Your task to perform on an android device: Play the last video I watched on Youtube Image 0: 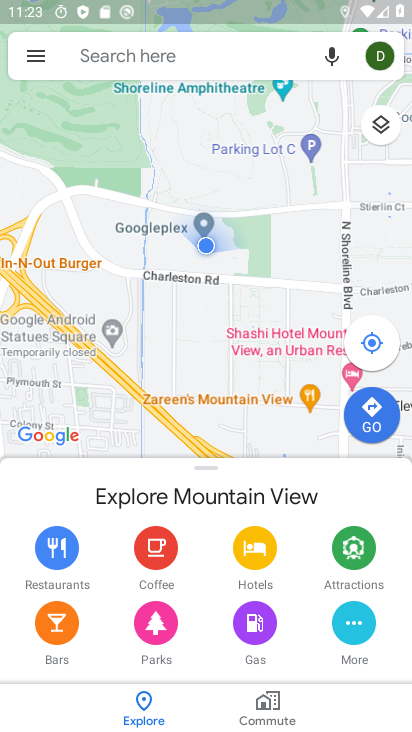
Step 0: press home button
Your task to perform on an android device: Play the last video I watched on Youtube Image 1: 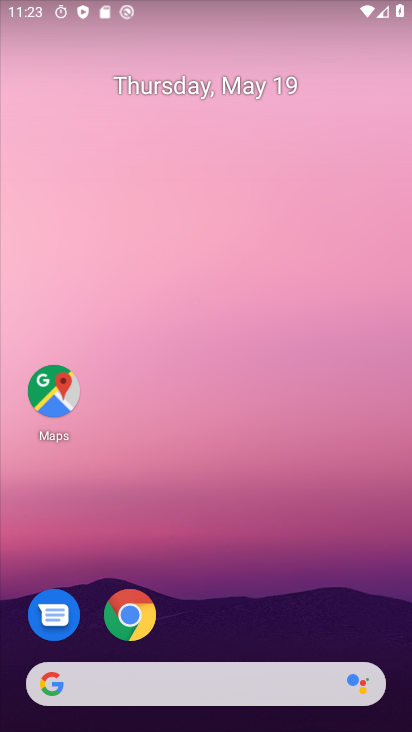
Step 1: drag from (310, 608) to (223, 1)
Your task to perform on an android device: Play the last video I watched on Youtube Image 2: 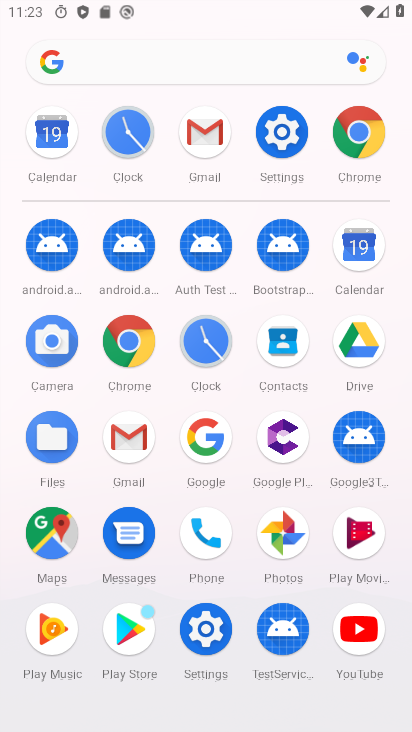
Step 2: drag from (162, 298) to (153, 117)
Your task to perform on an android device: Play the last video I watched on Youtube Image 3: 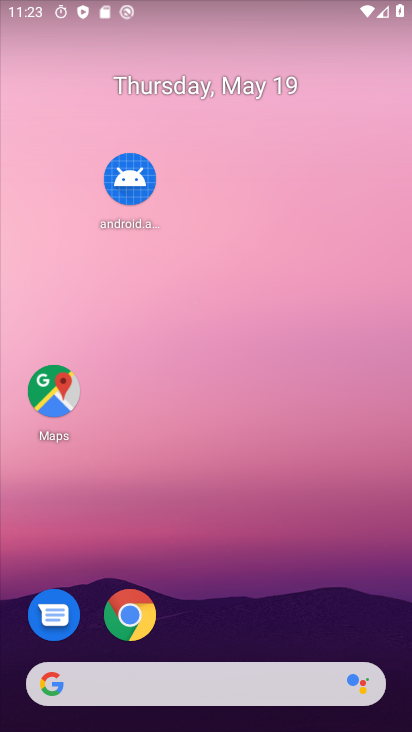
Step 3: drag from (345, 548) to (271, 25)
Your task to perform on an android device: Play the last video I watched on Youtube Image 4: 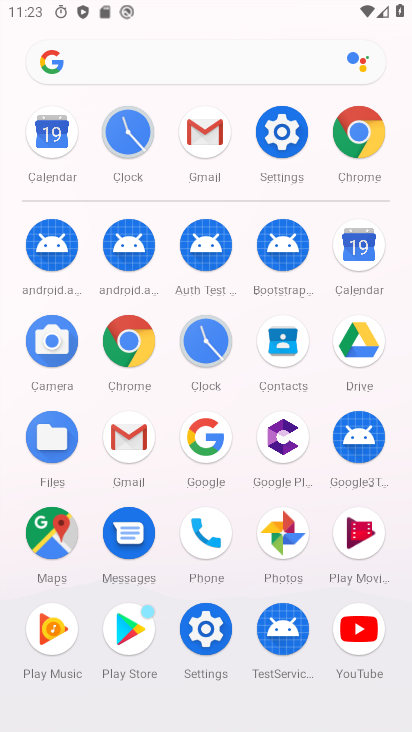
Step 4: drag from (397, 305) to (369, 26)
Your task to perform on an android device: Play the last video I watched on Youtube Image 5: 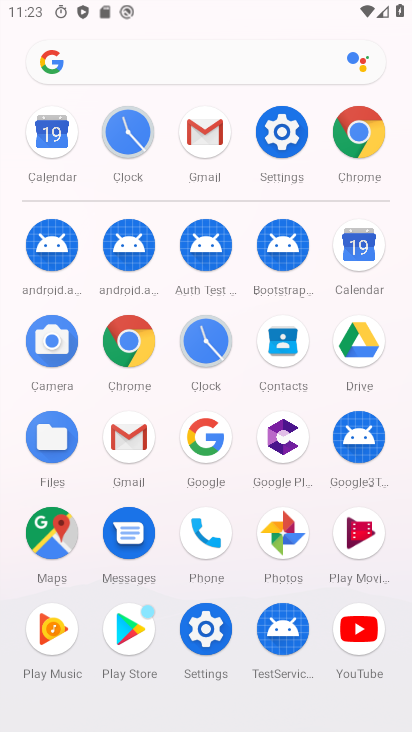
Step 5: click (363, 638)
Your task to perform on an android device: Play the last video I watched on Youtube Image 6: 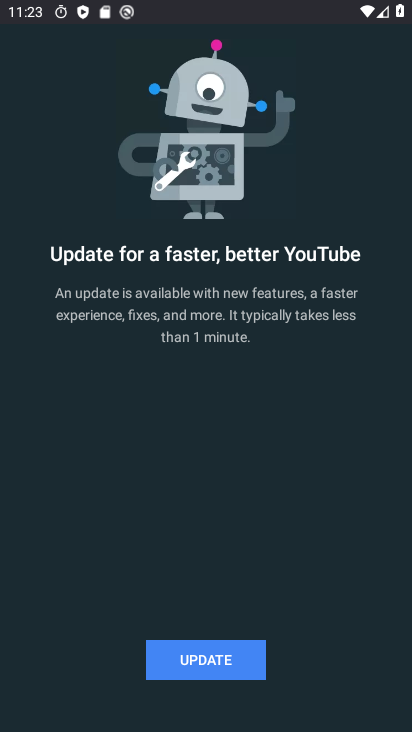
Step 6: click (192, 660)
Your task to perform on an android device: Play the last video I watched on Youtube Image 7: 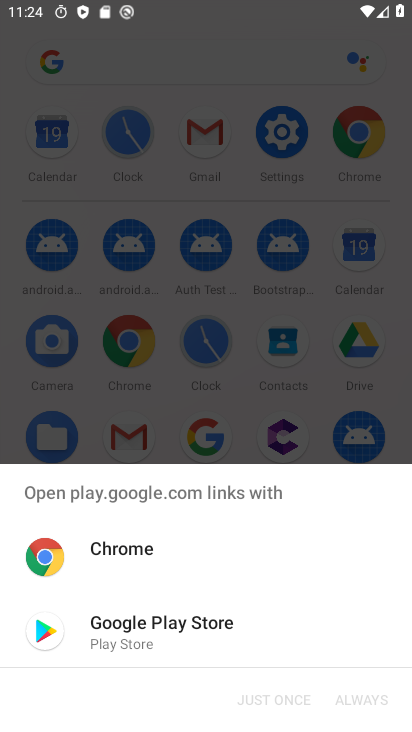
Step 7: click (141, 628)
Your task to perform on an android device: Play the last video I watched on Youtube Image 8: 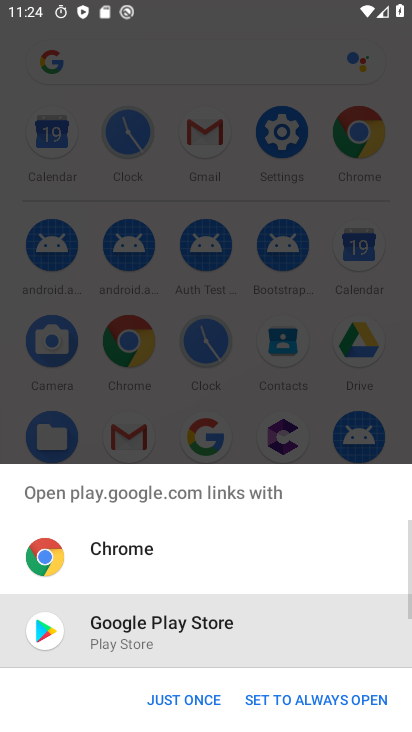
Step 8: click (206, 702)
Your task to perform on an android device: Play the last video I watched on Youtube Image 9: 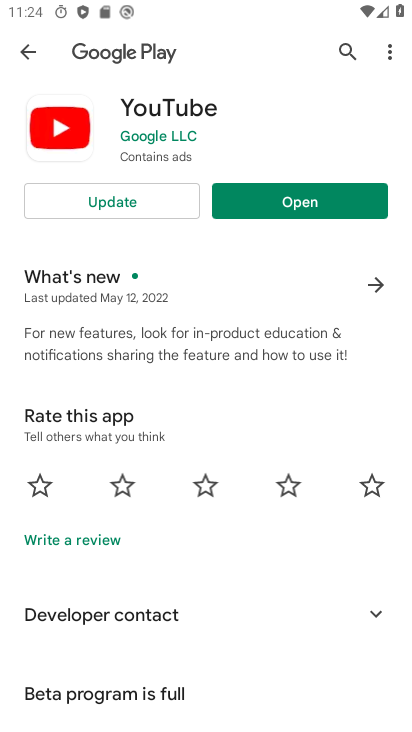
Step 9: click (165, 205)
Your task to perform on an android device: Play the last video I watched on Youtube Image 10: 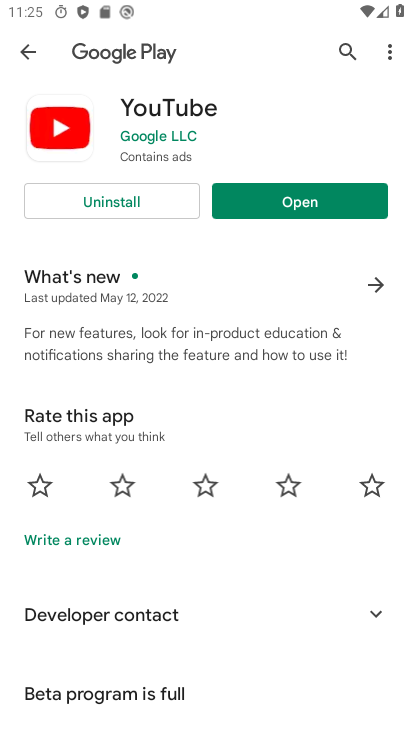
Step 10: click (242, 197)
Your task to perform on an android device: Play the last video I watched on Youtube Image 11: 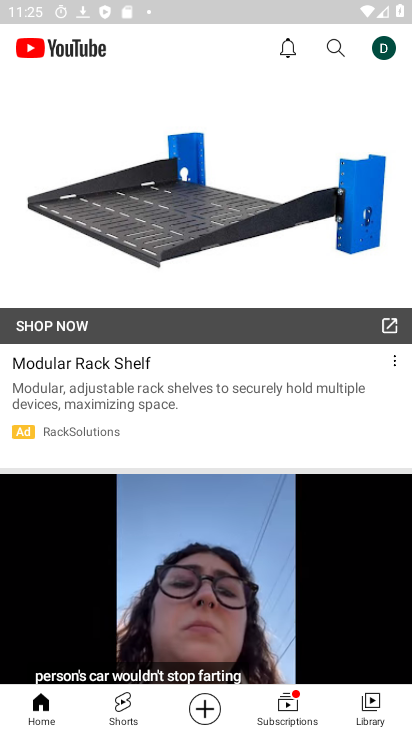
Step 11: click (364, 706)
Your task to perform on an android device: Play the last video I watched on Youtube Image 12: 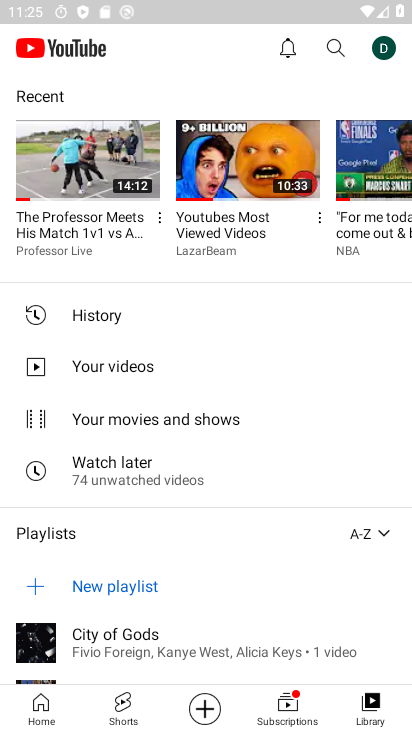
Step 12: click (85, 163)
Your task to perform on an android device: Play the last video I watched on Youtube Image 13: 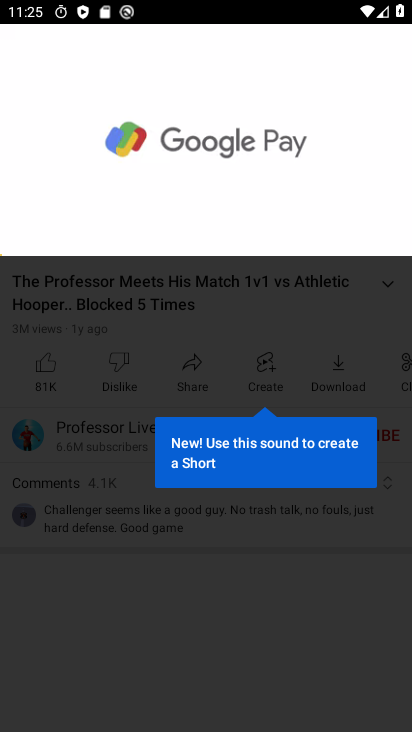
Step 13: task complete